Your task to perform on an android device: turn off translation in the chrome app Image 0: 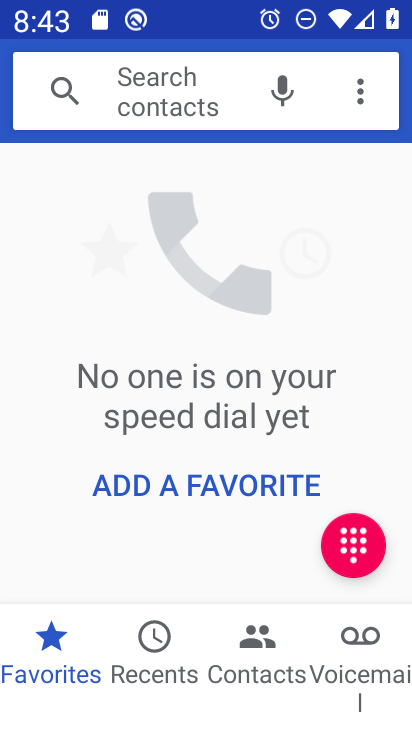
Step 0: press home button
Your task to perform on an android device: turn off translation in the chrome app Image 1: 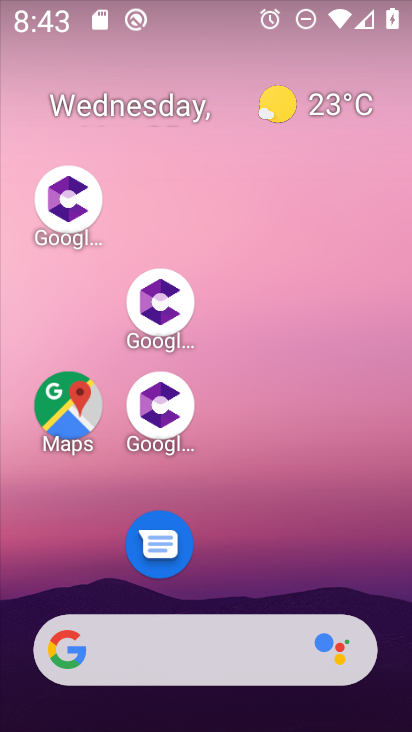
Step 1: drag from (285, 544) to (197, 20)
Your task to perform on an android device: turn off translation in the chrome app Image 2: 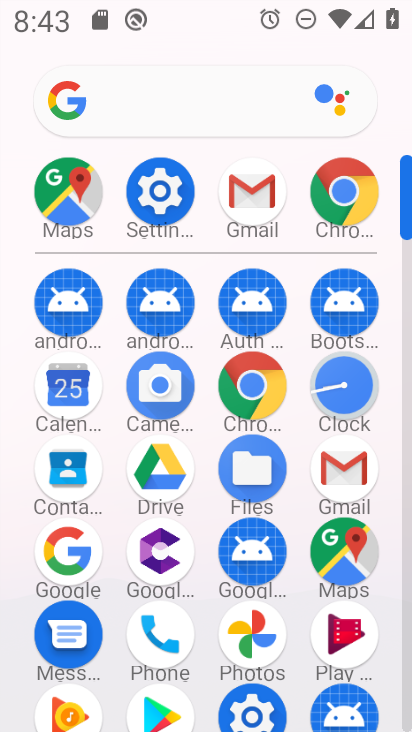
Step 2: click (337, 198)
Your task to perform on an android device: turn off translation in the chrome app Image 3: 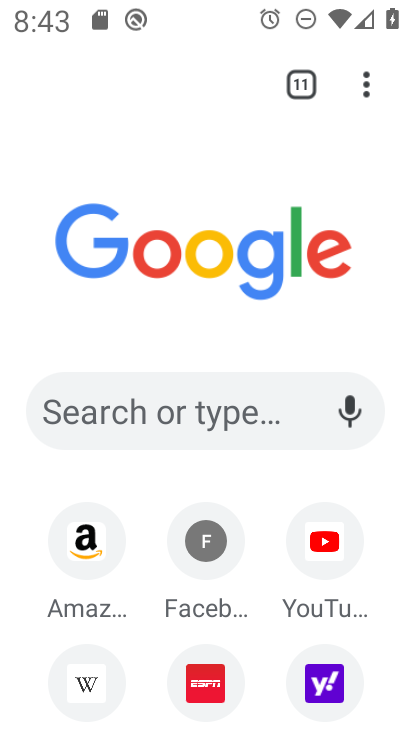
Step 3: click (371, 75)
Your task to perform on an android device: turn off translation in the chrome app Image 4: 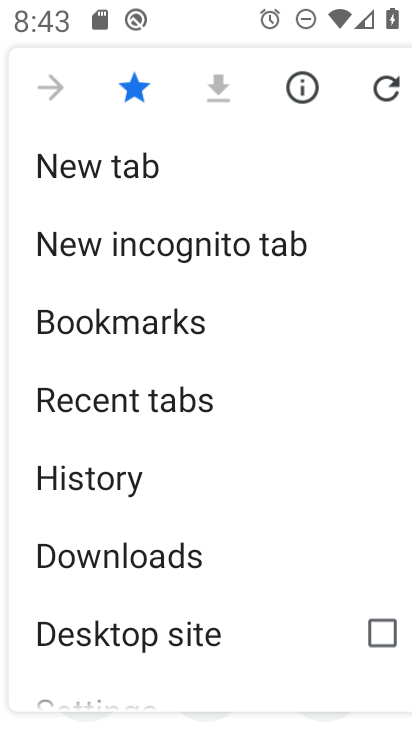
Step 4: drag from (294, 542) to (186, 102)
Your task to perform on an android device: turn off translation in the chrome app Image 5: 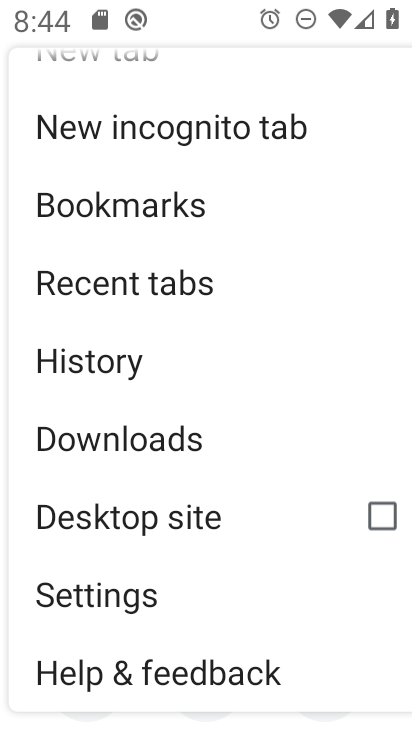
Step 5: click (105, 596)
Your task to perform on an android device: turn off translation in the chrome app Image 6: 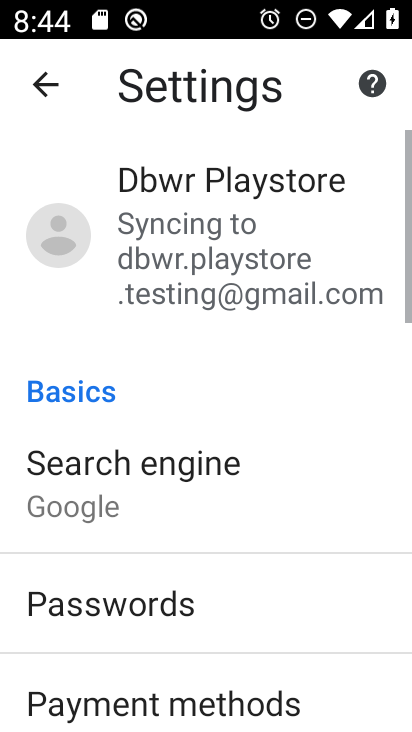
Step 6: drag from (203, 531) to (133, 133)
Your task to perform on an android device: turn off translation in the chrome app Image 7: 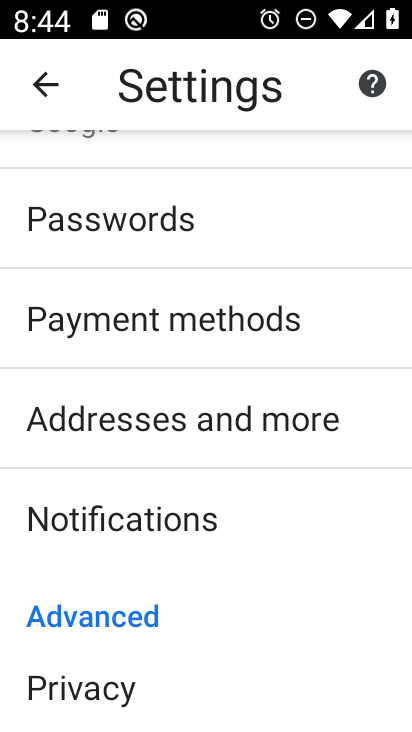
Step 7: drag from (160, 616) to (110, 270)
Your task to perform on an android device: turn off translation in the chrome app Image 8: 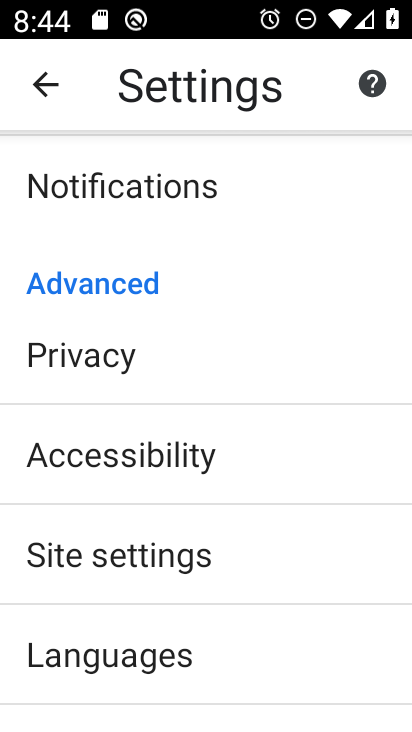
Step 8: click (126, 662)
Your task to perform on an android device: turn off translation in the chrome app Image 9: 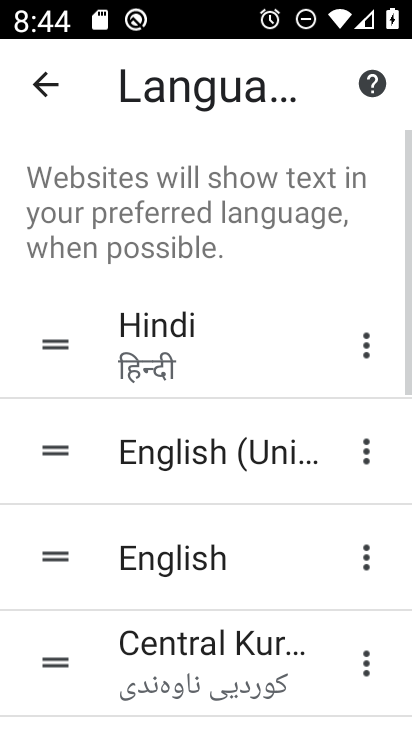
Step 9: task complete